Your task to perform on an android device: Open Youtube and go to "Your channel" Image 0: 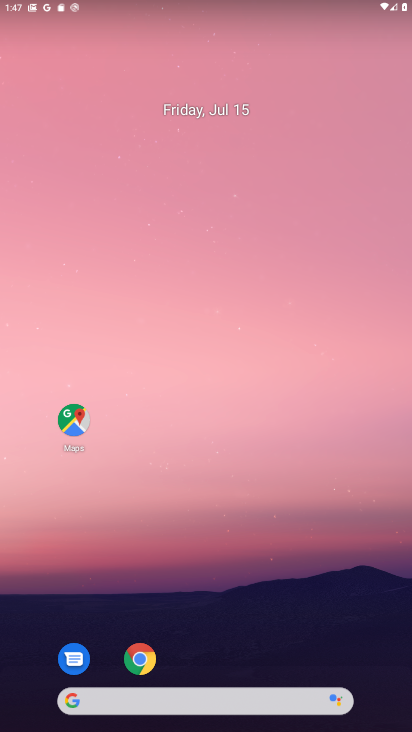
Step 0: drag from (341, 658) to (288, 122)
Your task to perform on an android device: Open Youtube and go to "Your channel" Image 1: 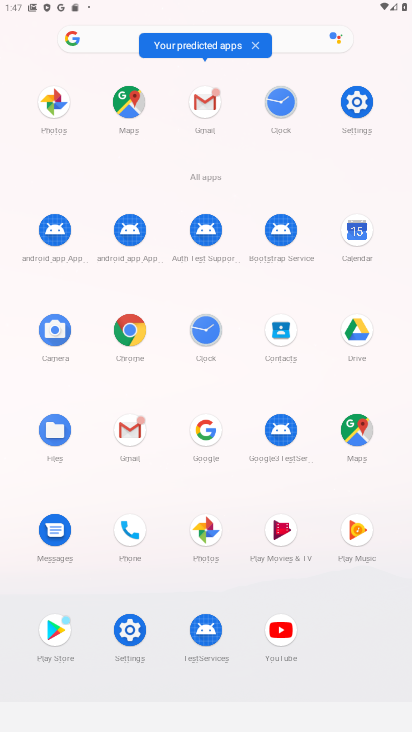
Step 1: click (286, 623)
Your task to perform on an android device: Open Youtube and go to "Your channel" Image 2: 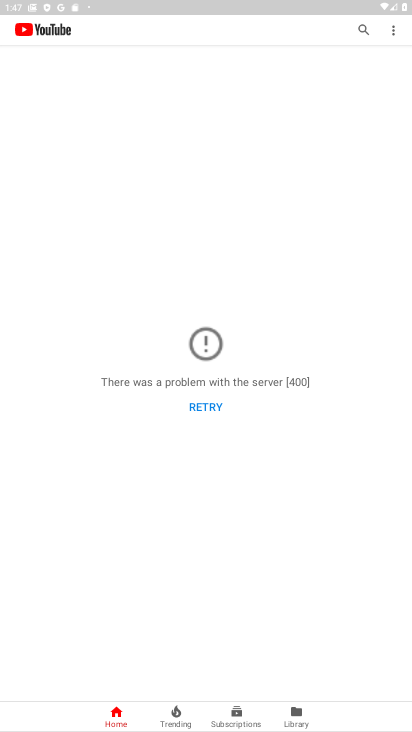
Step 2: task complete